Your task to perform on an android device: see sites visited before in the chrome app Image 0: 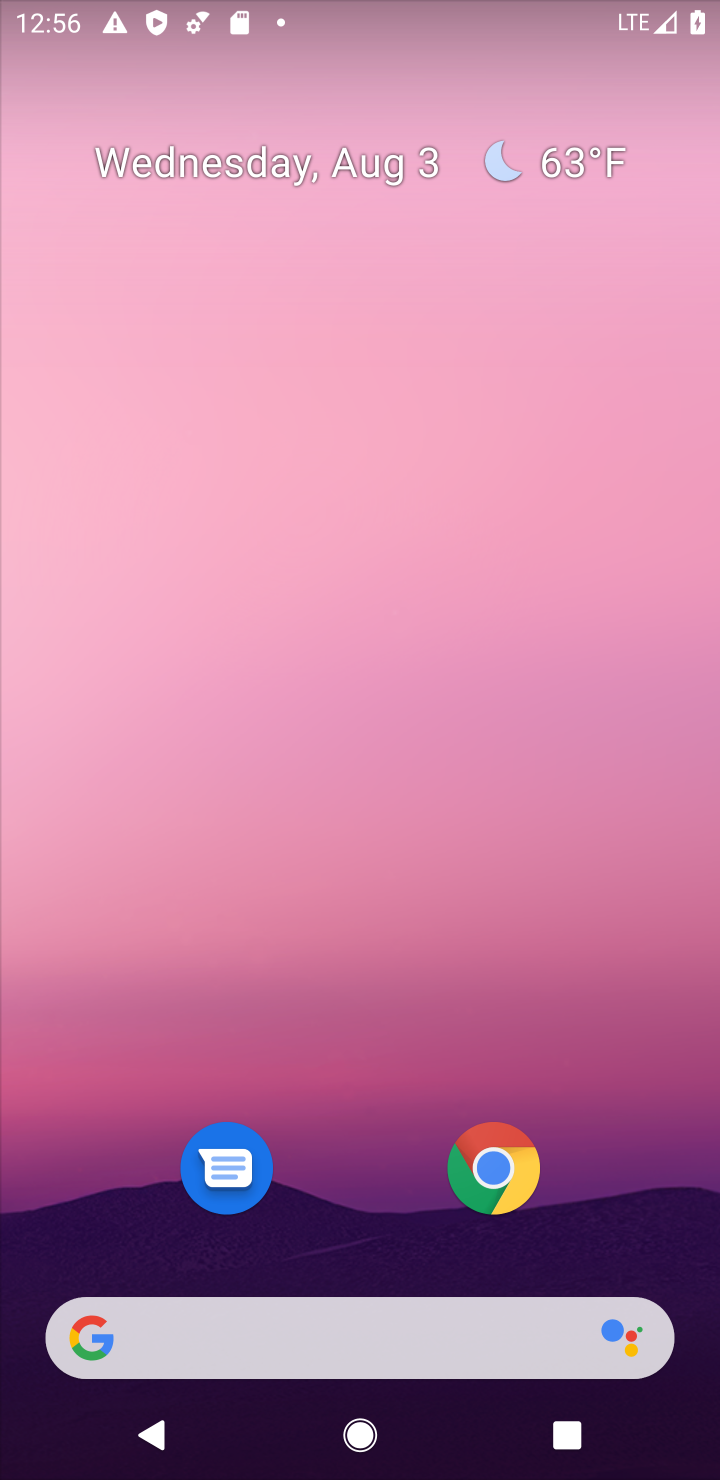
Step 0: press home button
Your task to perform on an android device: see sites visited before in the chrome app Image 1: 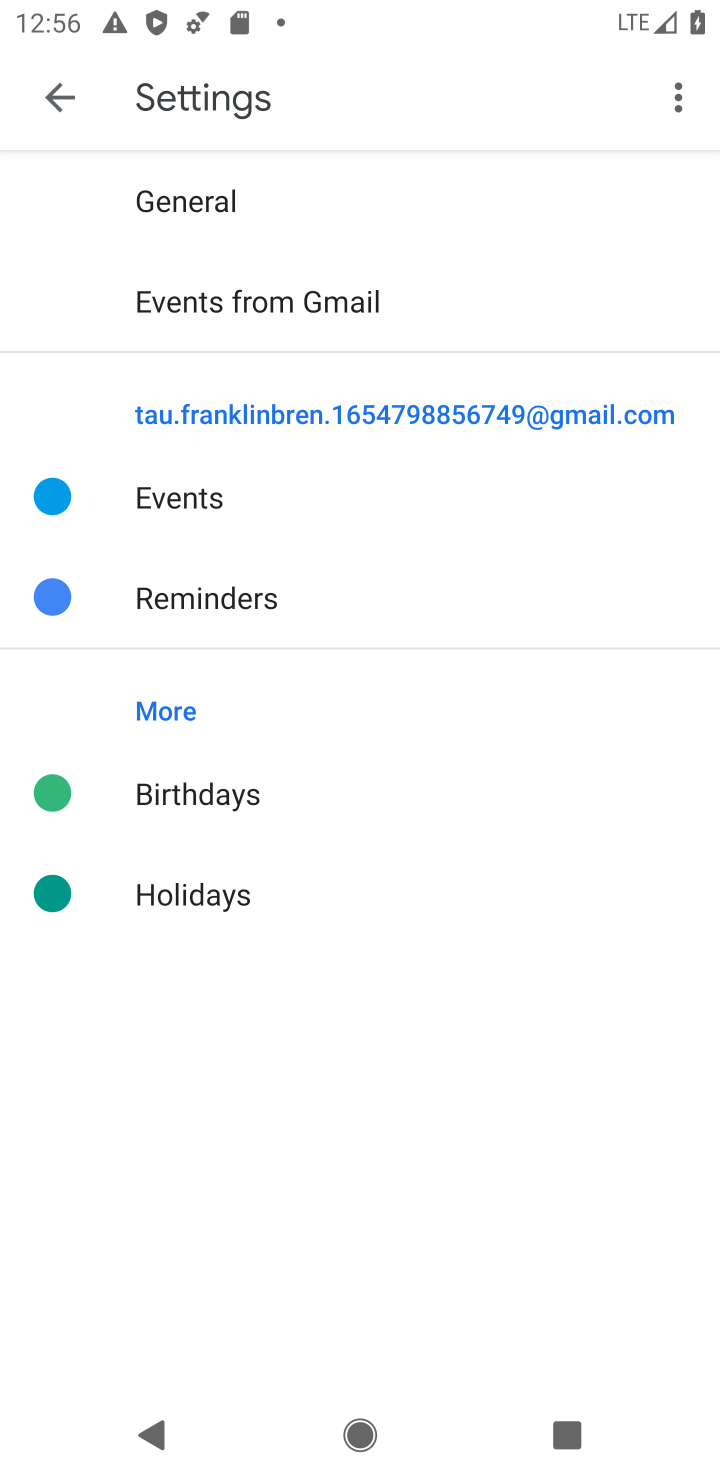
Step 1: drag from (397, 1118) to (415, 13)
Your task to perform on an android device: see sites visited before in the chrome app Image 2: 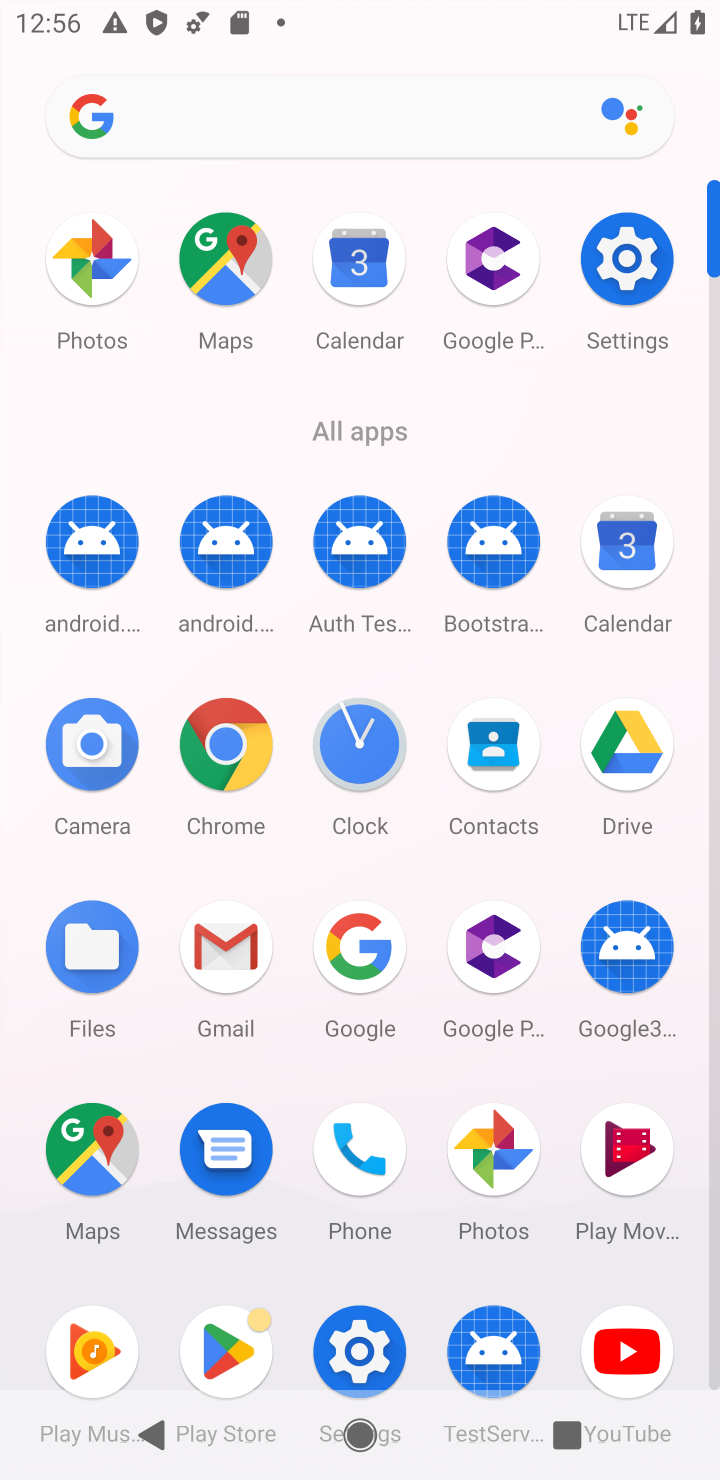
Step 2: press home button
Your task to perform on an android device: see sites visited before in the chrome app Image 3: 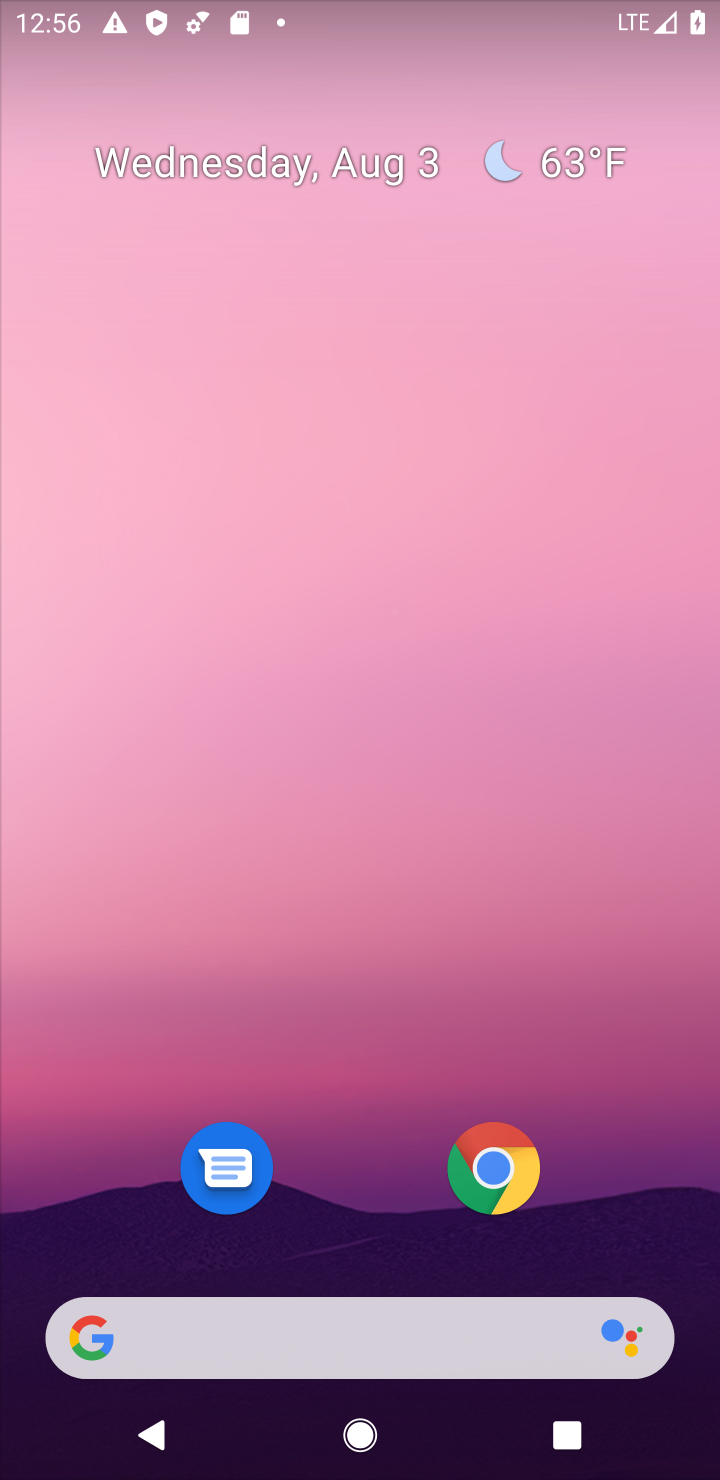
Step 3: drag from (400, 1131) to (385, 5)
Your task to perform on an android device: see sites visited before in the chrome app Image 4: 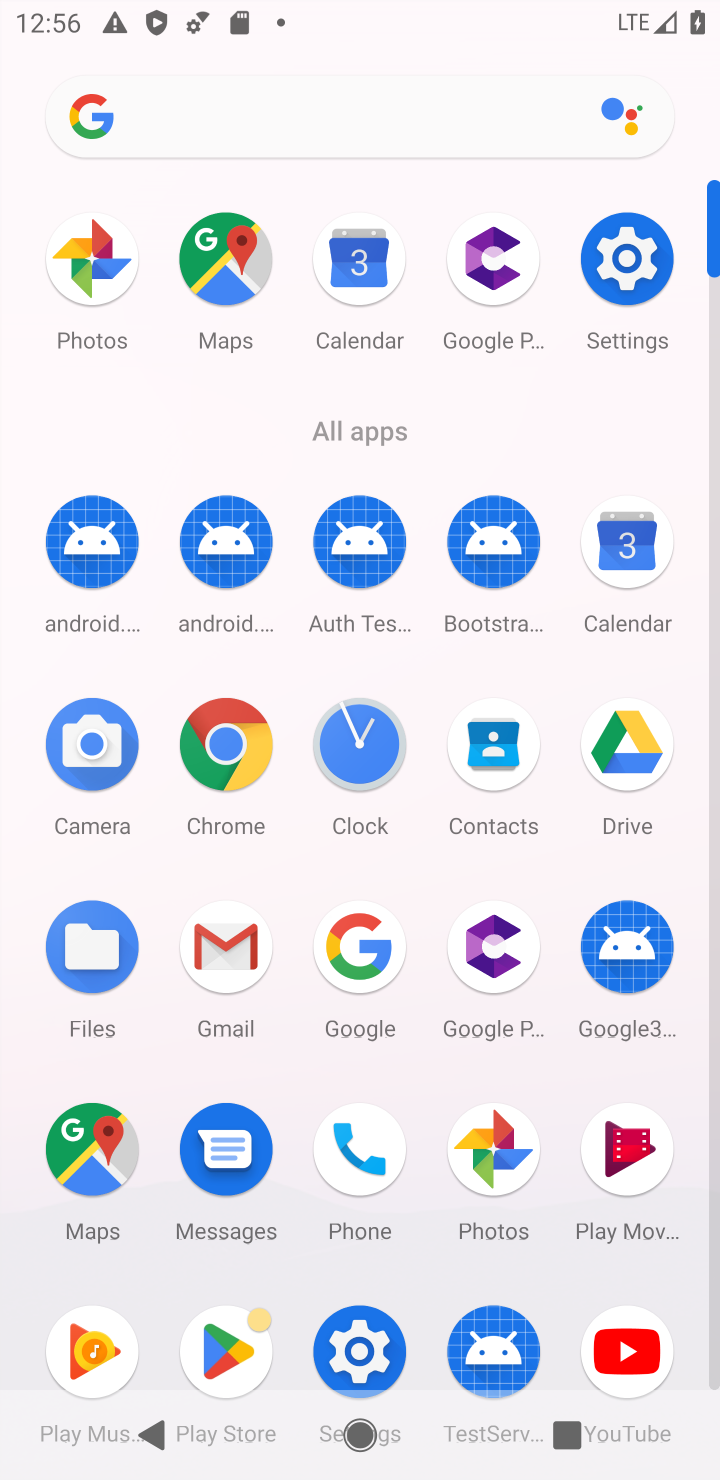
Step 4: click (247, 863)
Your task to perform on an android device: see sites visited before in the chrome app Image 5: 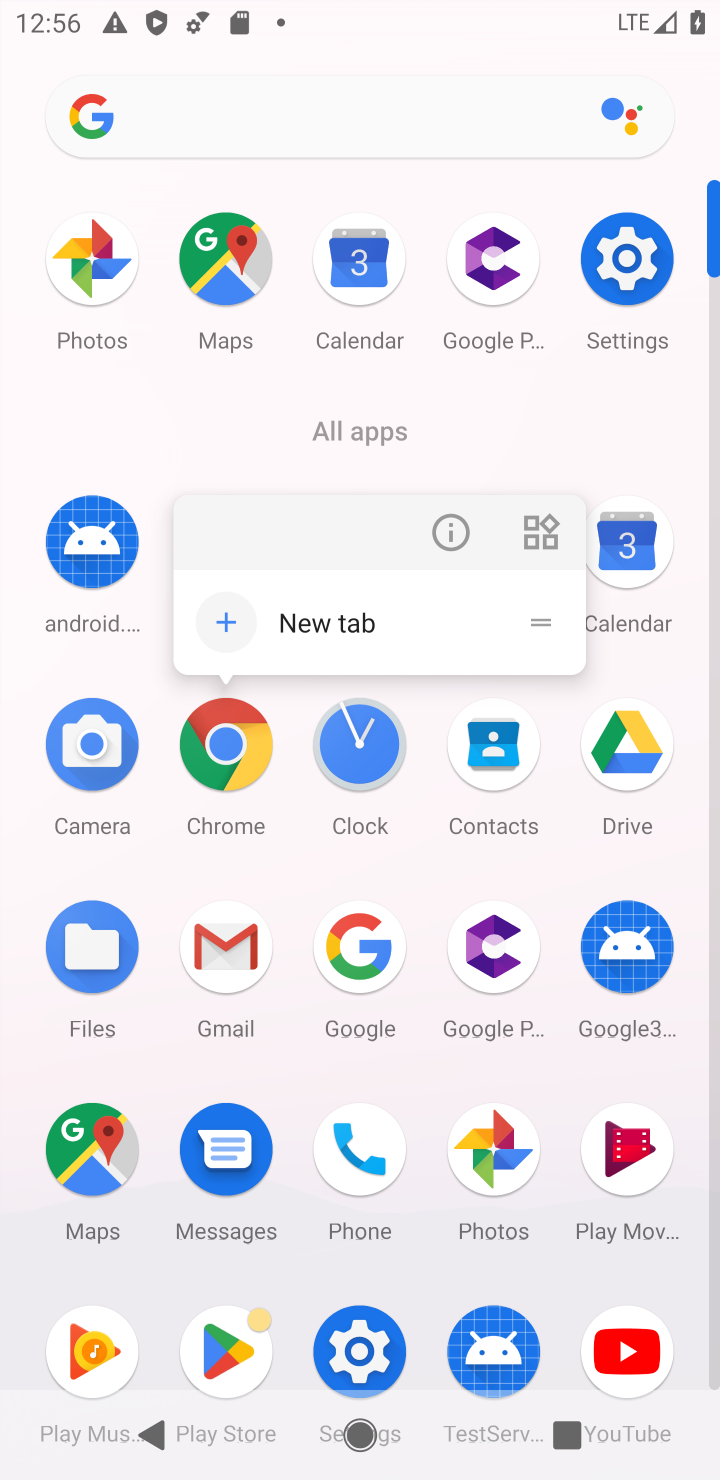
Step 5: click (248, 734)
Your task to perform on an android device: see sites visited before in the chrome app Image 6: 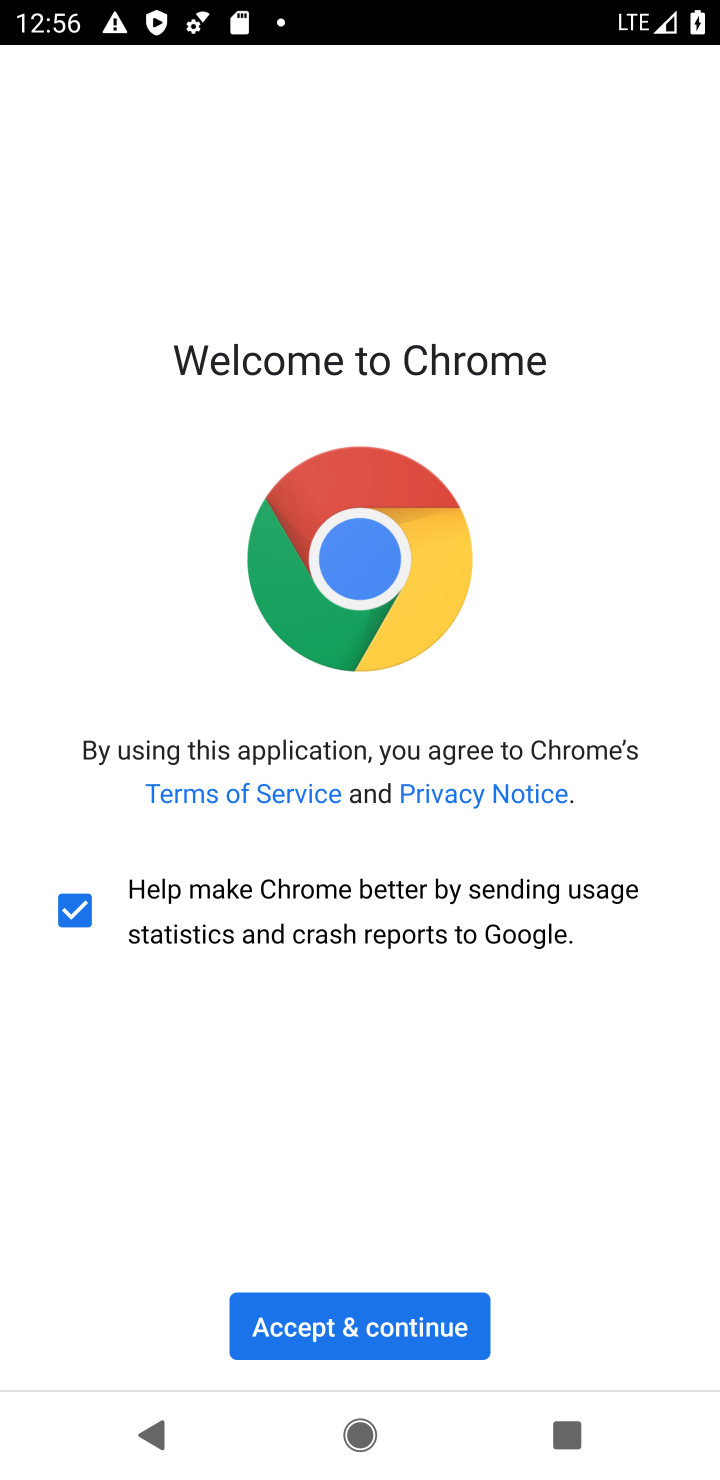
Step 6: click (439, 1315)
Your task to perform on an android device: see sites visited before in the chrome app Image 7: 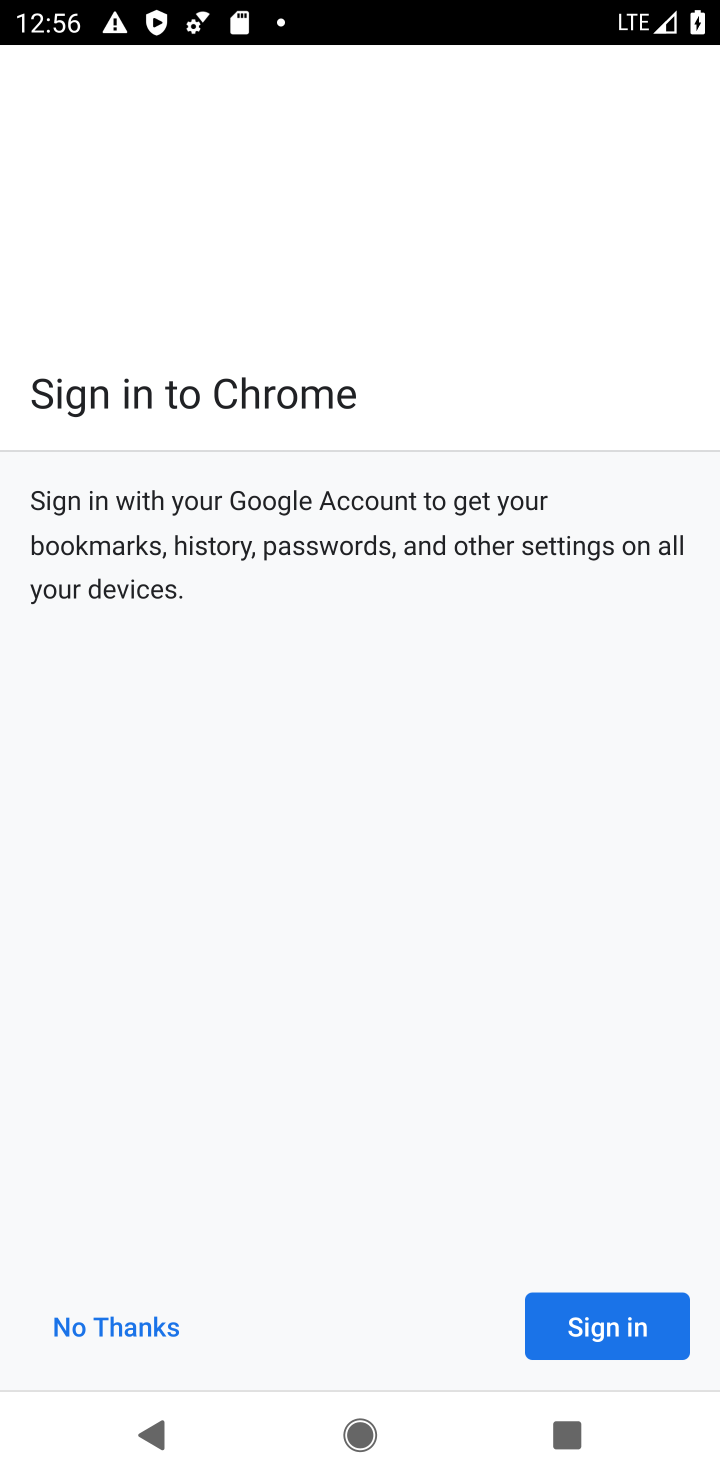
Step 7: click (641, 1335)
Your task to perform on an android device: see sites visited before in the chrome app Image 8: 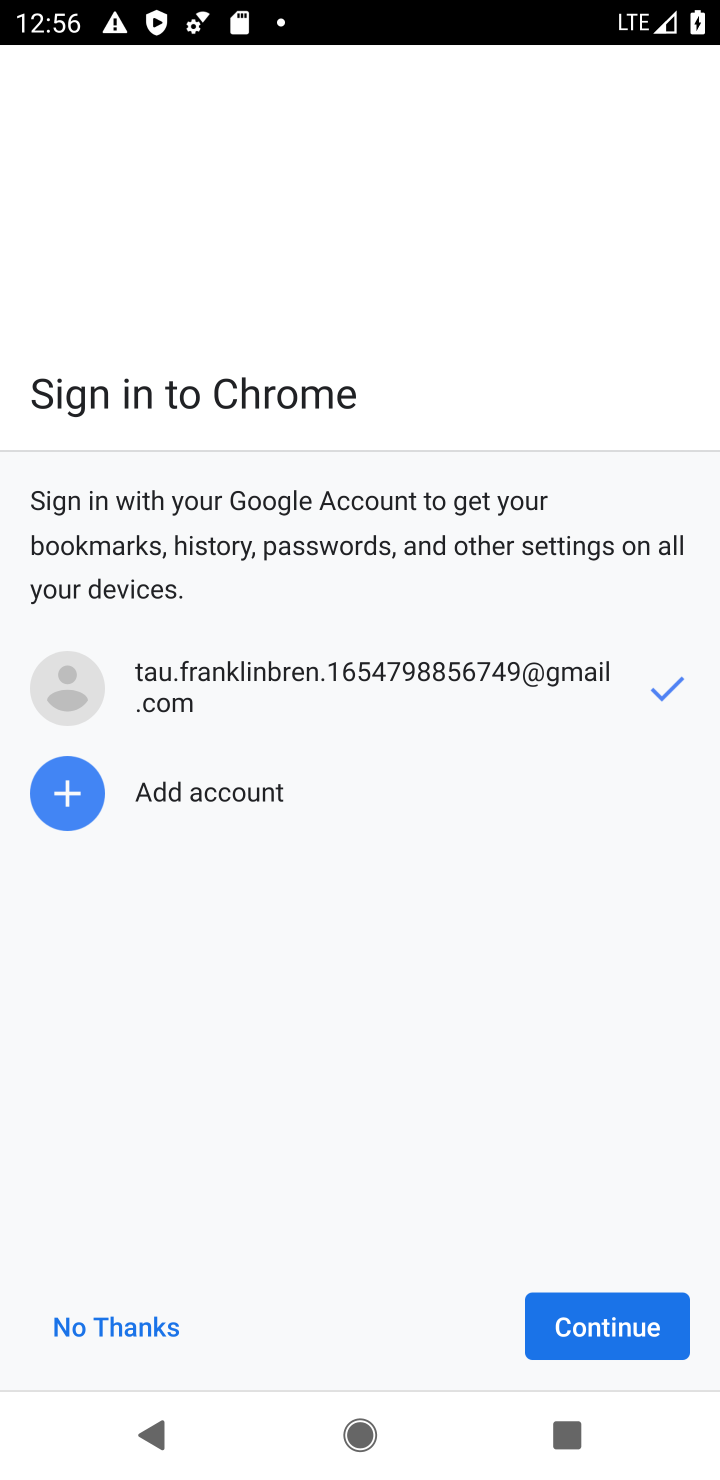
Step 8: click (641, 1335)
Your task to perform on an android device: see sites visited before in the chrome app Image 9: 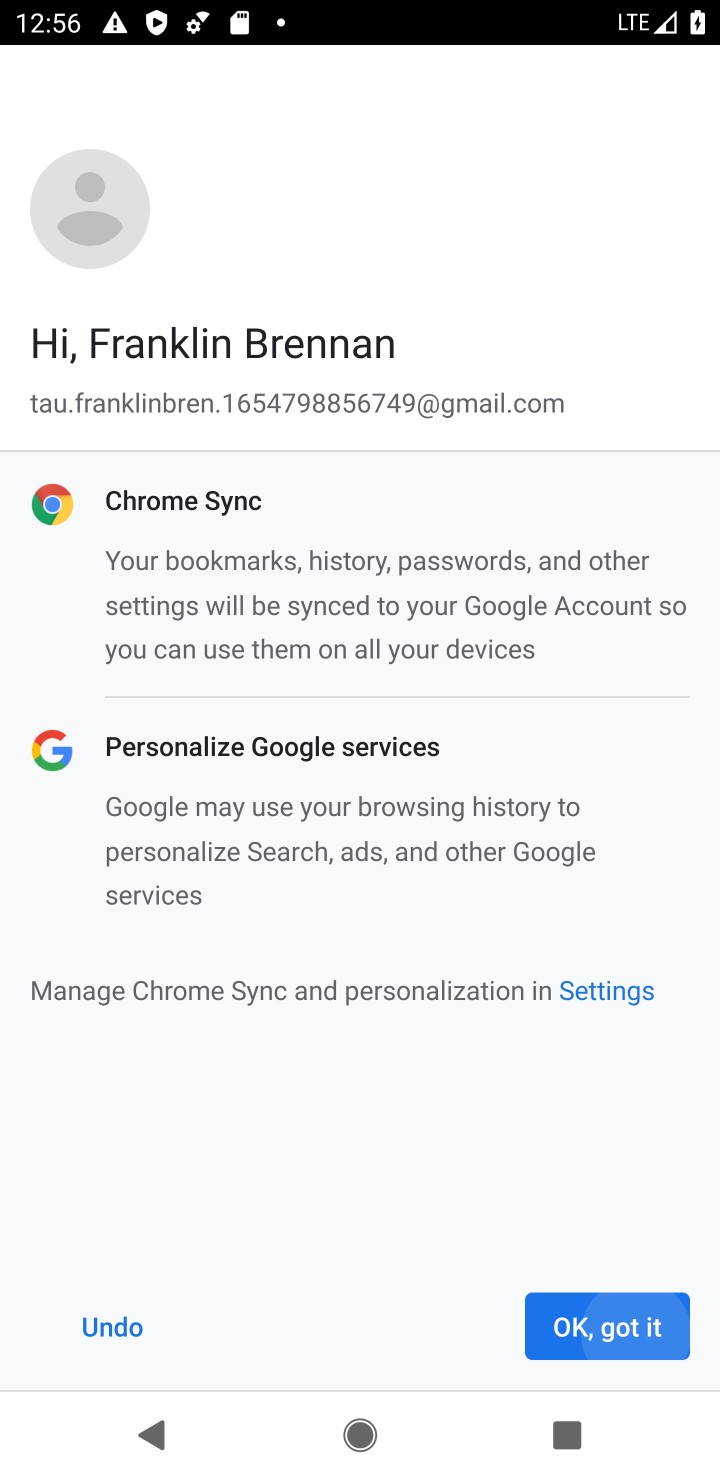
Step 9: click (641, 1335)
Your task to perform on an android device: see sites visited before in the chrome app Image 10: 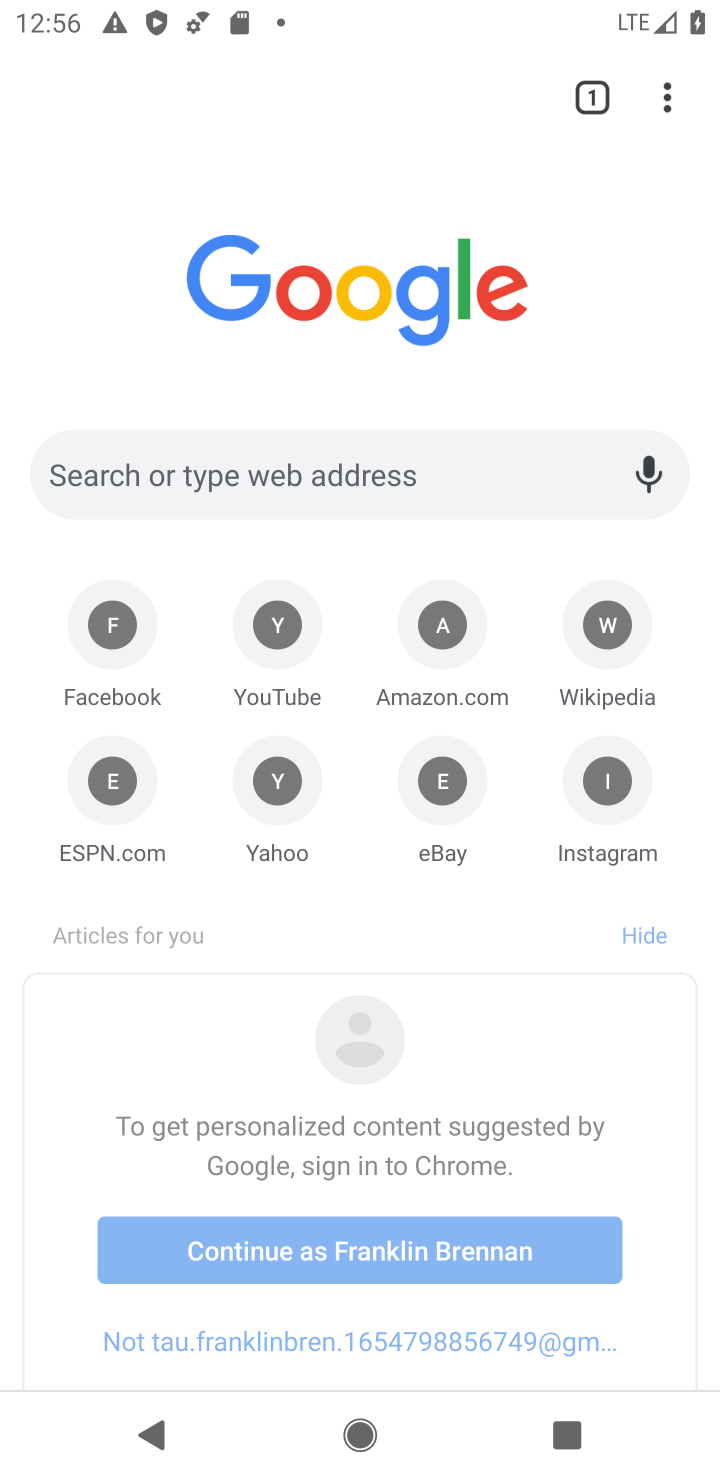
Step 10: drag from (681, 80) to (321, 831)
Your task to perform on an android device: see sites visited before in the chrome app Image 11: 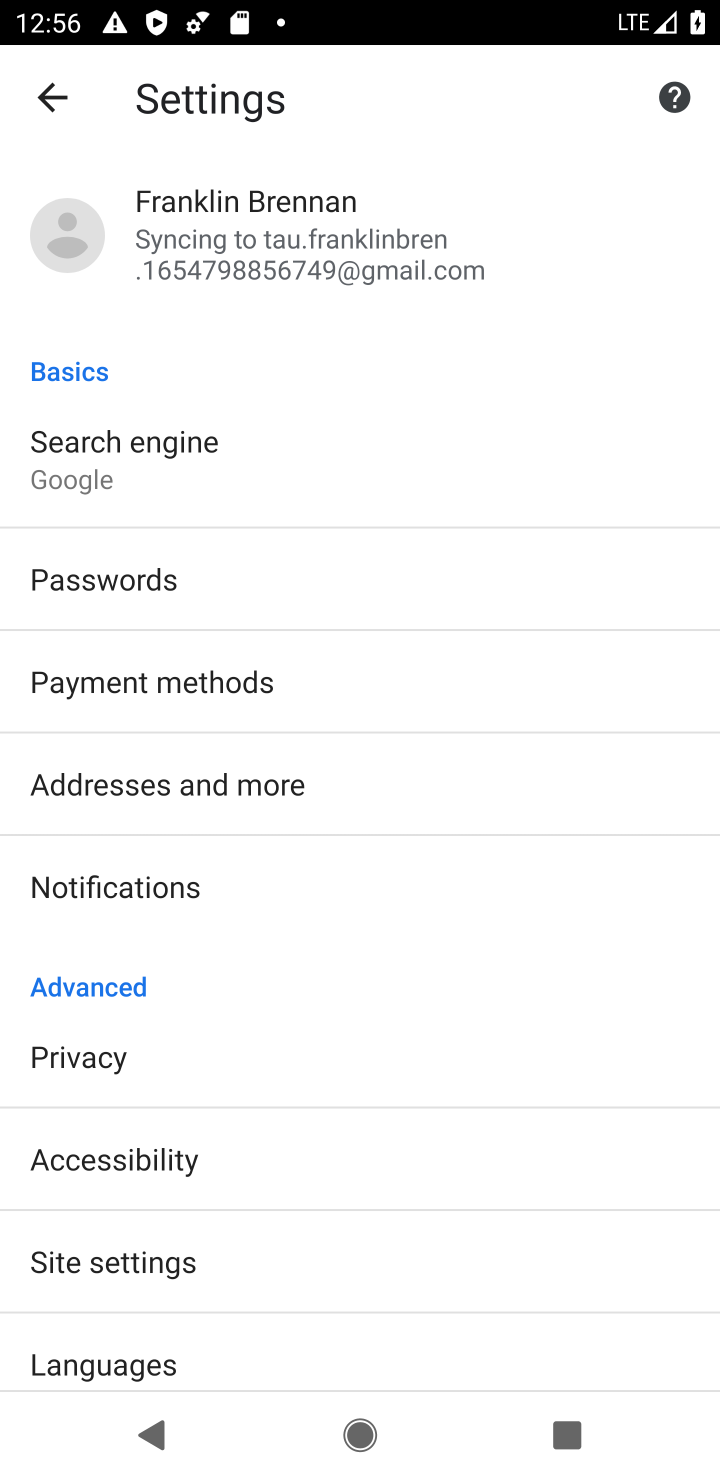
Step 11: click (29, 119)
Your task to perform on an android device: see sites visited before in the chrome app Image 12: 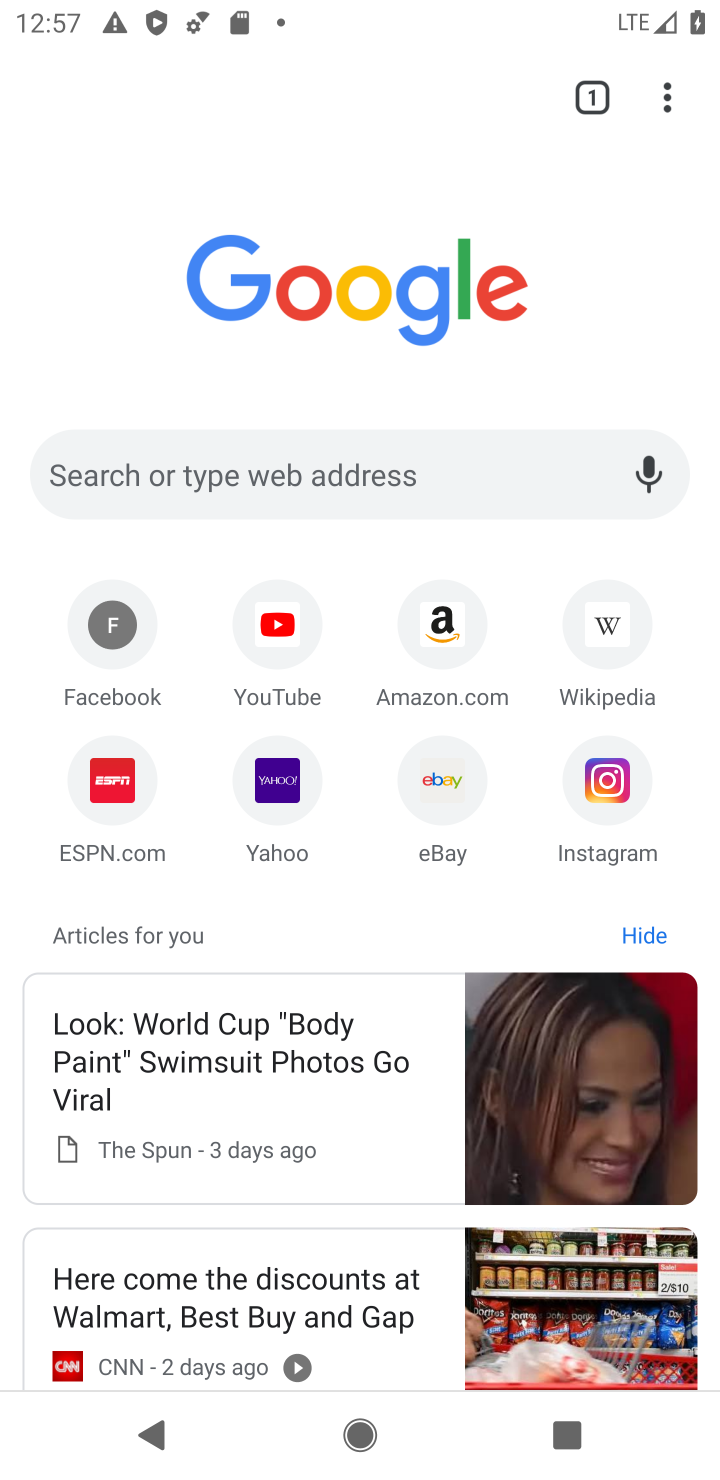
Step 12: task complete